Your task to perform on an android device: Open Wikipedia Image 0: 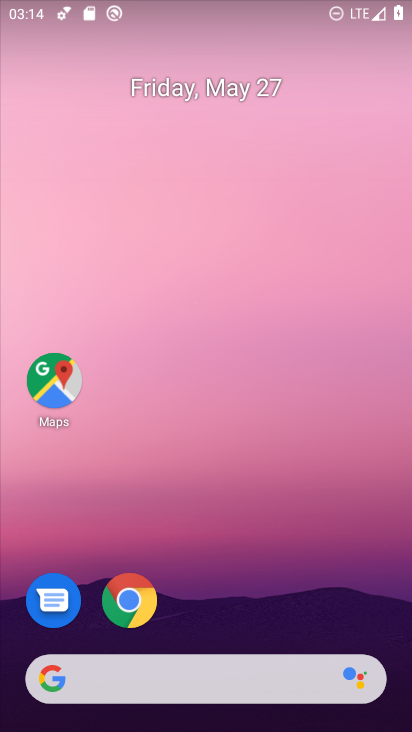
Step 0: click (127, 601)
Your task to perform on an android device: Open Wikipedia Image 1: 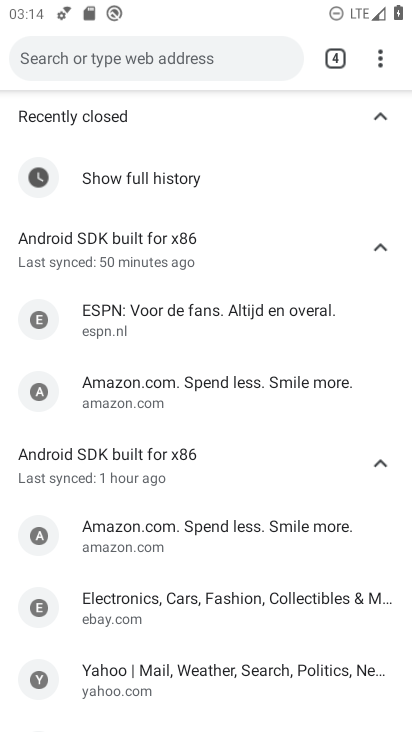
Step 1: click (379, 61)
Your task to perform on an android device: Open Wikipedia Image 2: 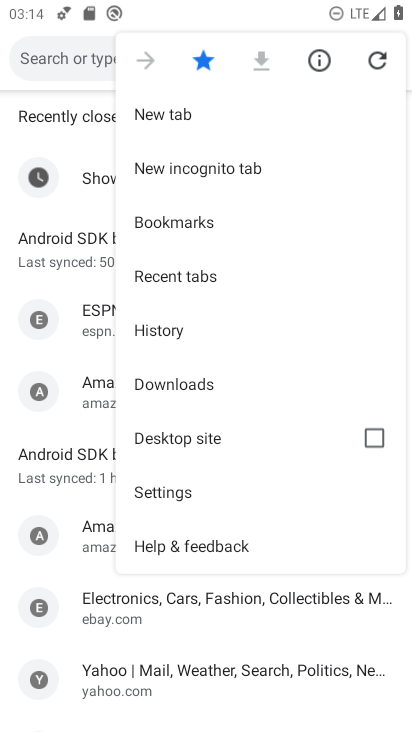
Step 2: click (165, 114)
Your task to perform on an android device: Open Wikipedia Image 3: 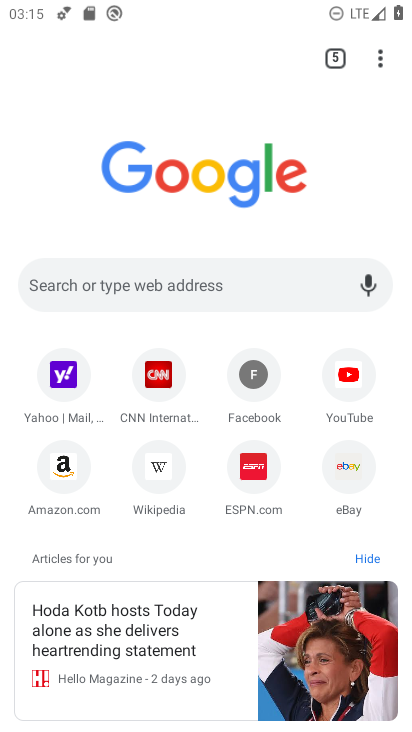
Step 3: click (164, 459)
Your task to perform on an android device: Open Wikipedia Image 4: 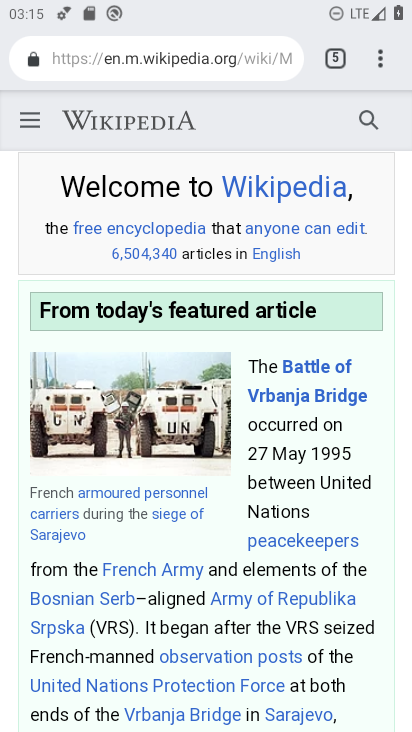
Step 4: task complete